Your task to perform on an android device: What's on my calendar today? Image 0: 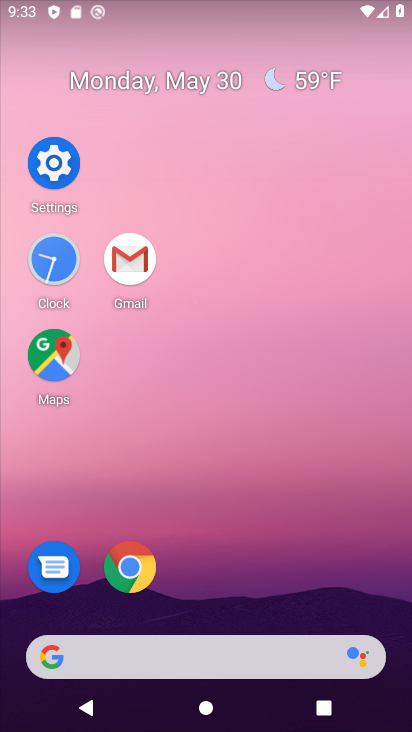
Step 0: drag from (298, 388) to (311, 24)
Your task to perform on an android device: What's on my calendar today? Image 1: 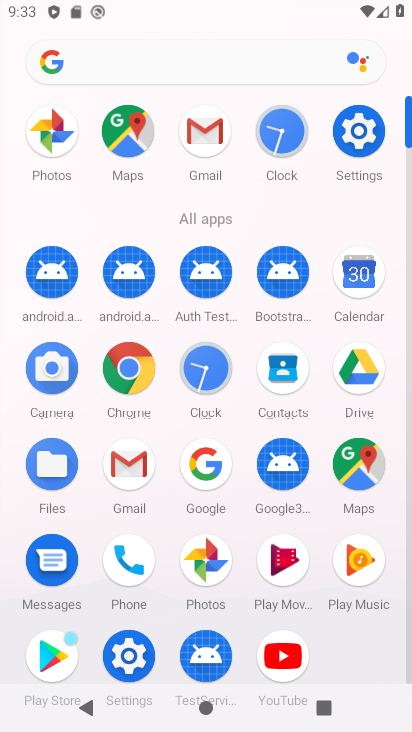
Step 1: drag from (371, 270) to (224, 265)
Your task to perform on an android device: What's on my calendar today? Image 2: 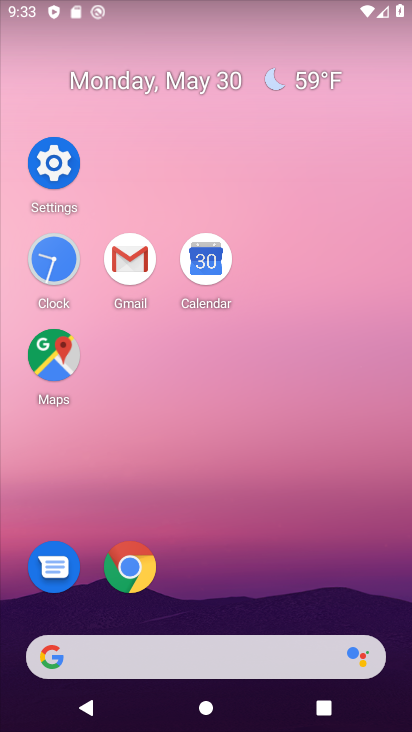
Step 2: drag from (211, 261) to (140, 171)
Your task to perform on an android device: What's on my calendar today? Image 3: 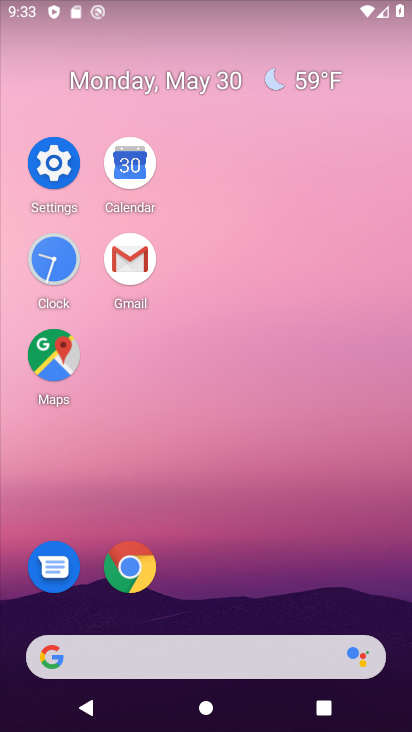
Step 3: click (140, 161)
Your task to perform on an android device: What's on my calendar today? Image 4: 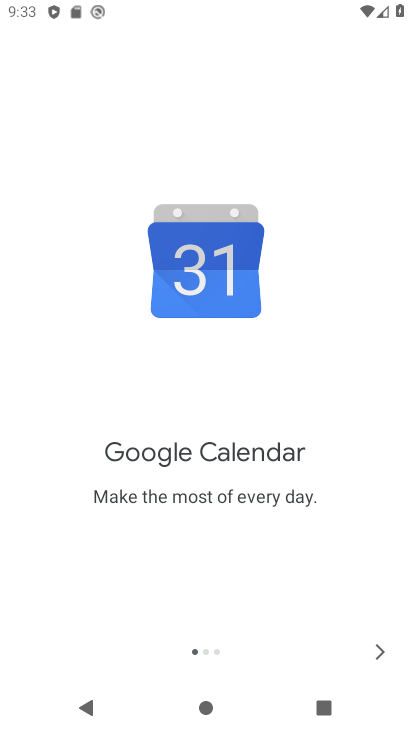
Step 4: click (377, 652)
Your task to perform on an android device: What's on my calendar today? Image 5: 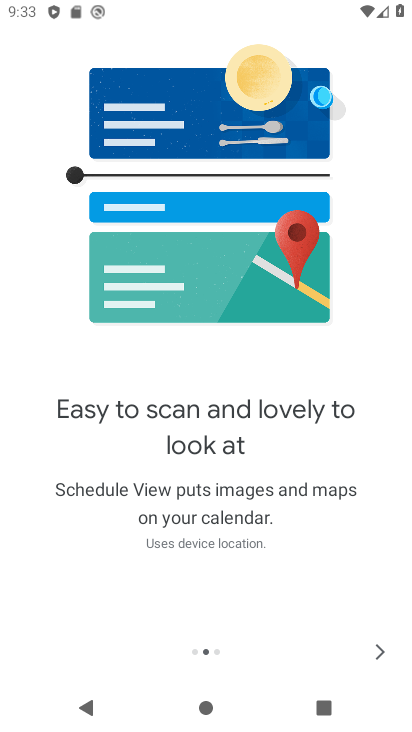
Step 5: click (377, 652)
Your task to perform on an android device: What's on my calendar today? Image 6: 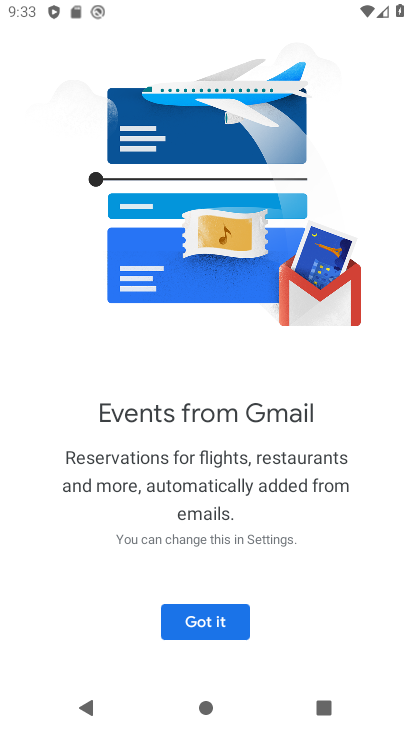
Step 6: click (200, 621)
Your task to perform on an android device: What's on my calendar today? Image 7: 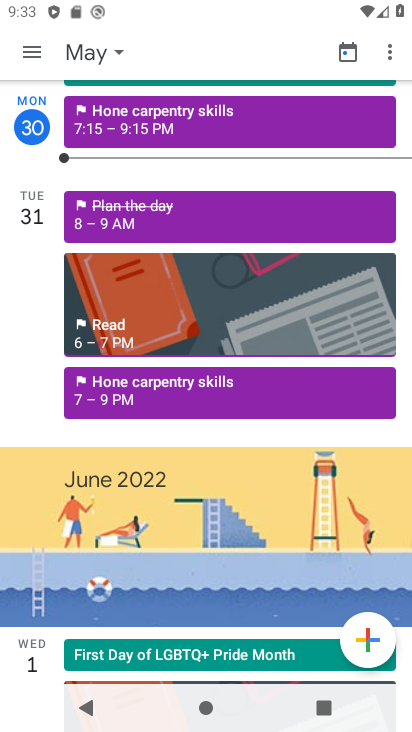
Step 7: click (36, 47)
Your task to perform on an android device: What's on my calendar today? Image 8: 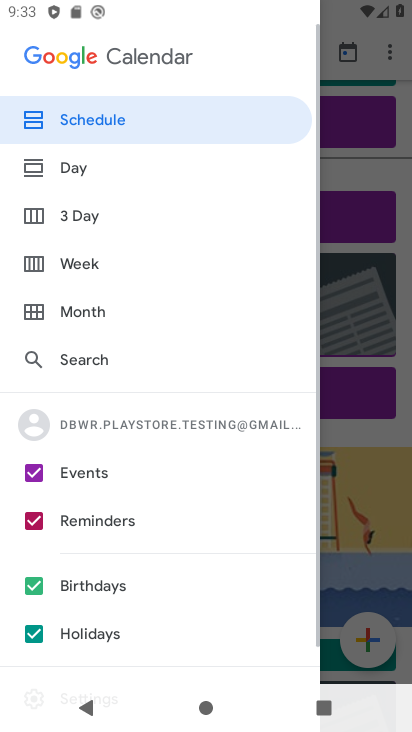
Step 8: click (108, 179)
Your task to perform on an android device: What's on my calendar today? Image 9: 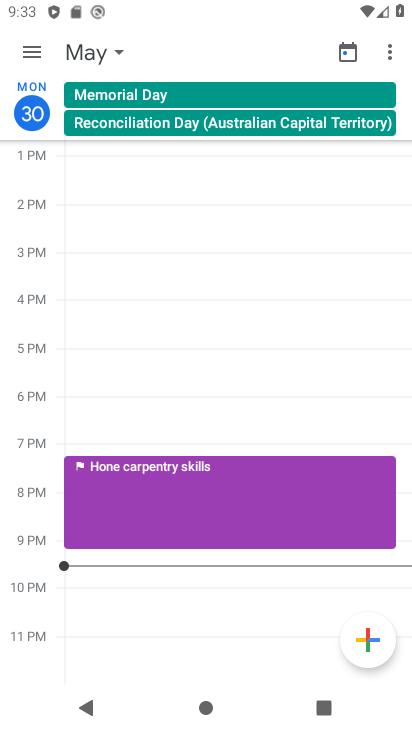
Step 9: task complete